Your task to perform on an android device: Search for sushi restaurants on Maps Image 0: 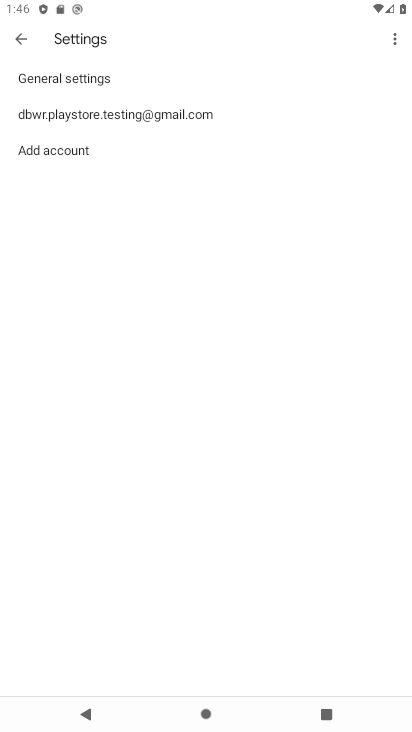
Step 0: press home button
Your task to perform on an android device: Search for sushi restaurants on Maps Image 1: 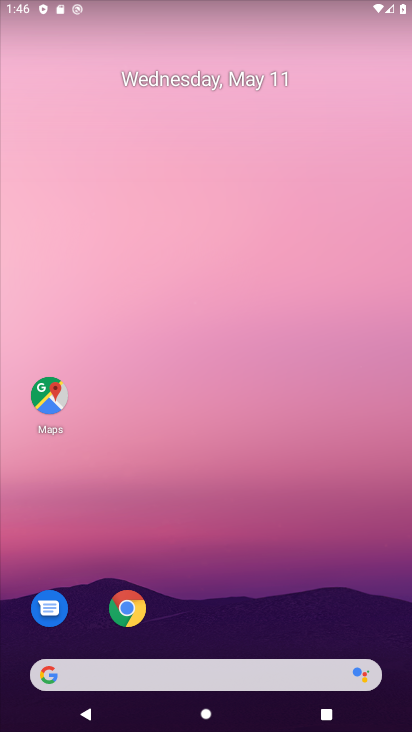
Step 1: click (51, 395)
Your task to perform on an android device: Search for sushi restaurants on Maps Image 2: 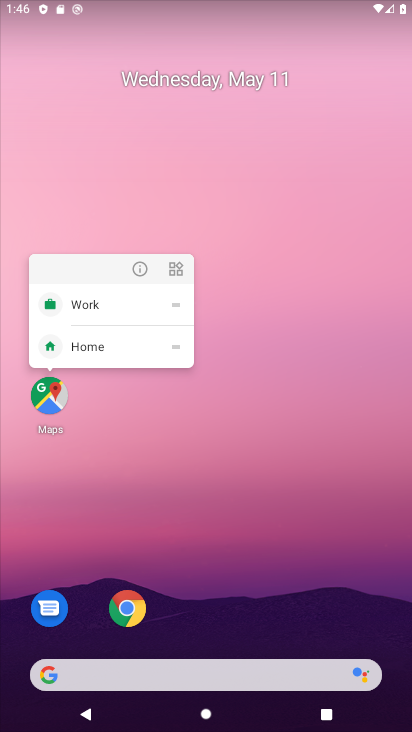
Step 2: click (52, 397)
Your task to perform on an android device: Search for sushi restaurants on Maps Image 3: 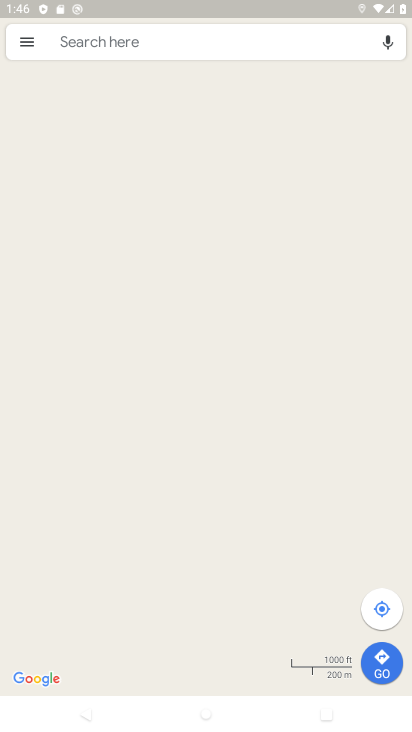
Step 3: click (130, 40)
Your task to perform on an android device: Search for sushi restaurants on Maps Image 4: 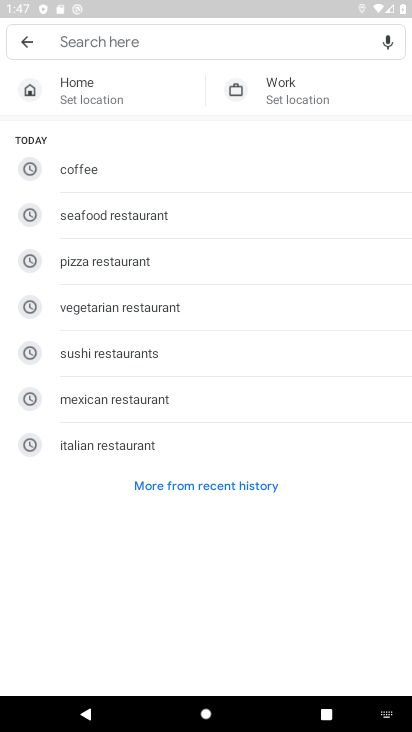
Step 4: type "sushi"
Your task to perform on an android device: Search for sushi restaurants on Maps Image 5: 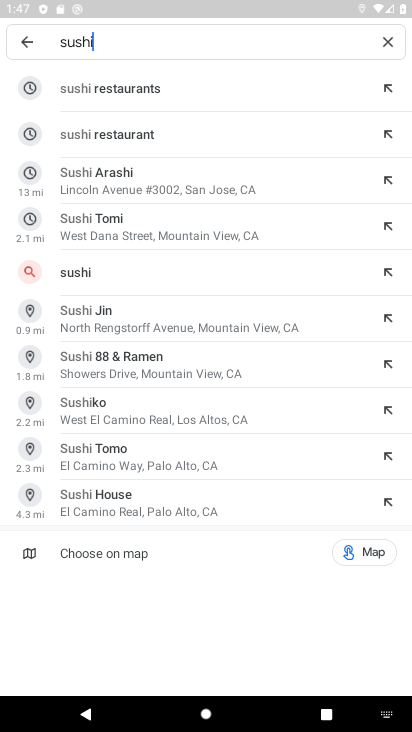
Step 5: click (149, 94)
Your task to perform on an android device: Search for sushi restaurants on Maps Image 6: 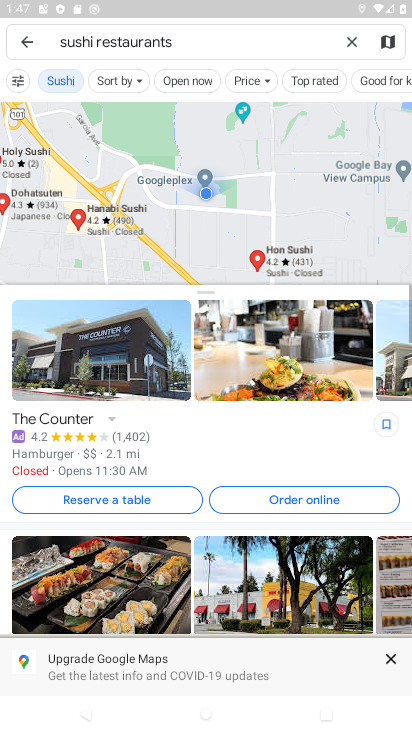
Step 6: task complete